Your task to perform on an android device: Open calendar and show me the fourth week of next month Image 0: 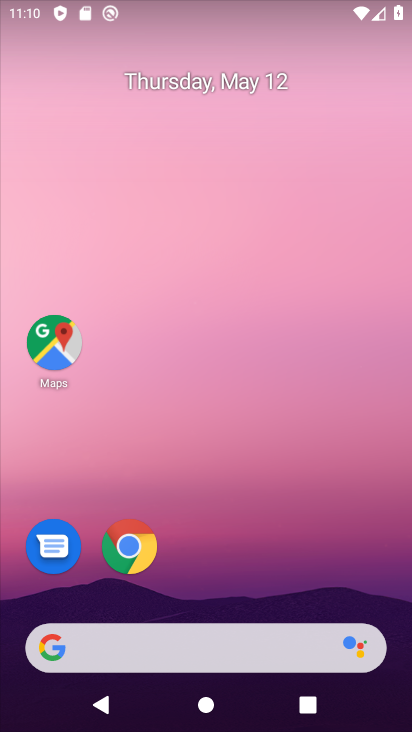
Step 0: drag from (222, 728) to (246, 138)
Your task to perform on an android device: Open calendar and show me the fourth week of next month Image 1: 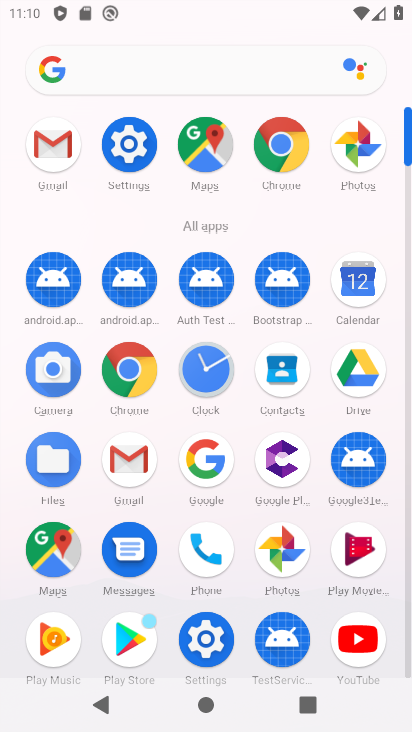
Step 1: click (351, 280)
Your task to perform on an android device: Open calendar and show me the fourth week of next month Image 2: 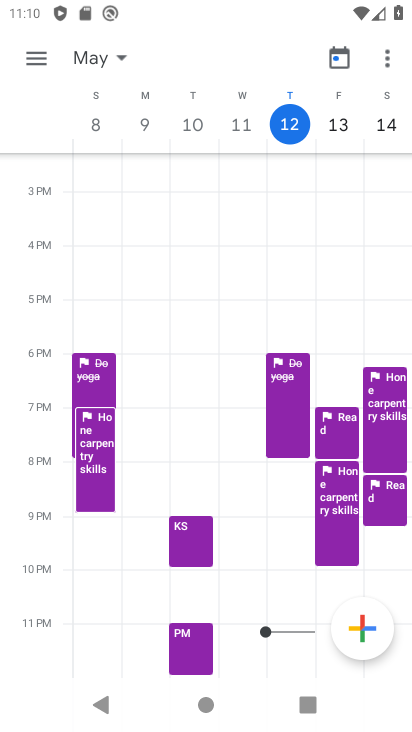
Step 2: click (80, 54)
Your task to perform on an android device: Open calendar and show me the fourth week of next month Image 3: 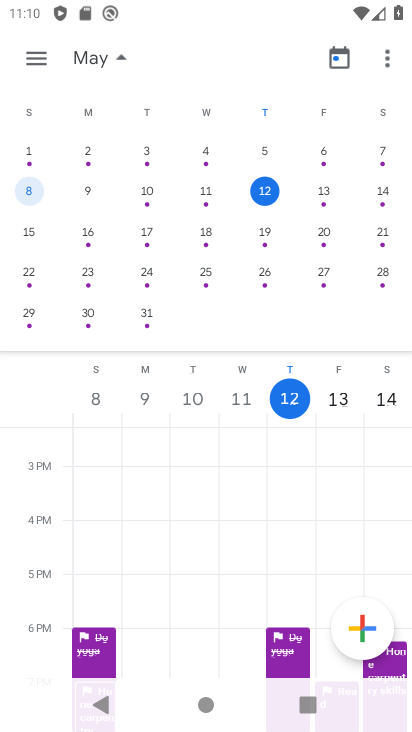
Step 3: drag from (370, 243) to (30, 239)
Your task to perform on an android device: Open calendar and show me the fourth week of next month Image 4: 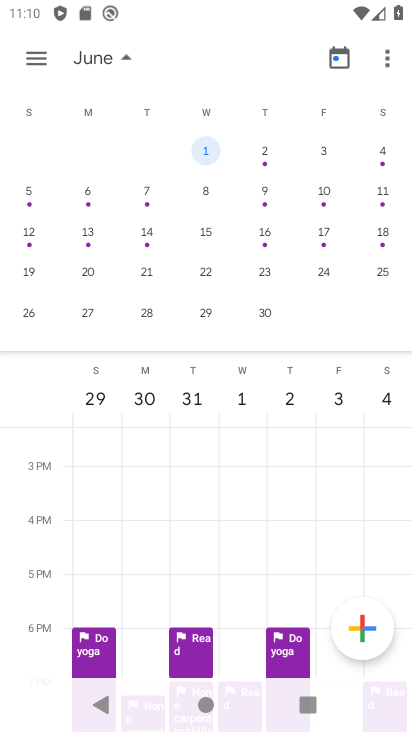
Step 4: click (90, 307)
Your task to perform on an android device: Open calendar and show me the fourth week of next month Image 5: 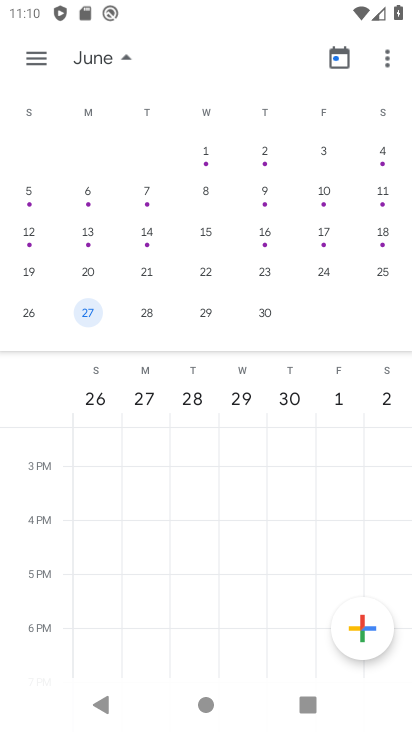
Step 5: task complete